Your task to perform on an android device: What's the latest news in astronomy? Image 0: 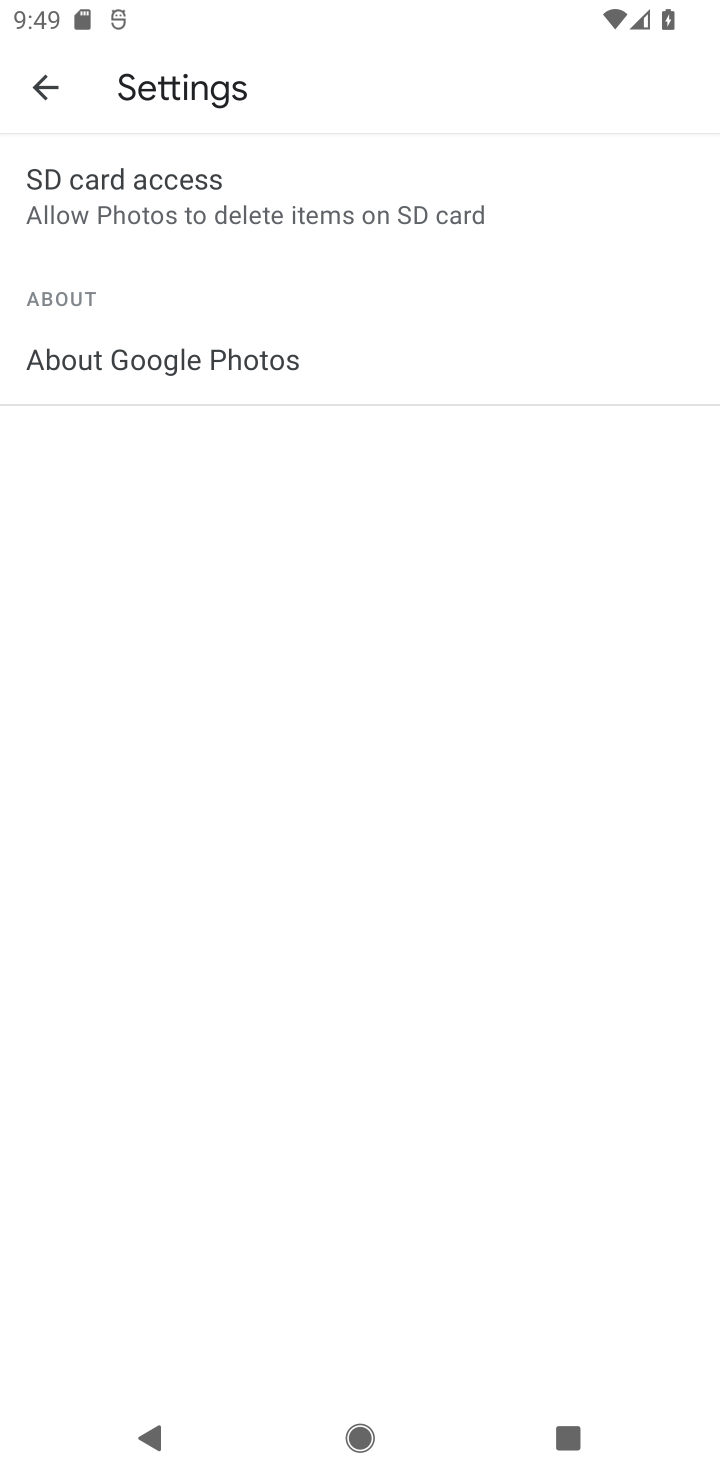
Step 0: press home button
Your task to perform on an android device: What's the latest news in astronomy? Image 1: 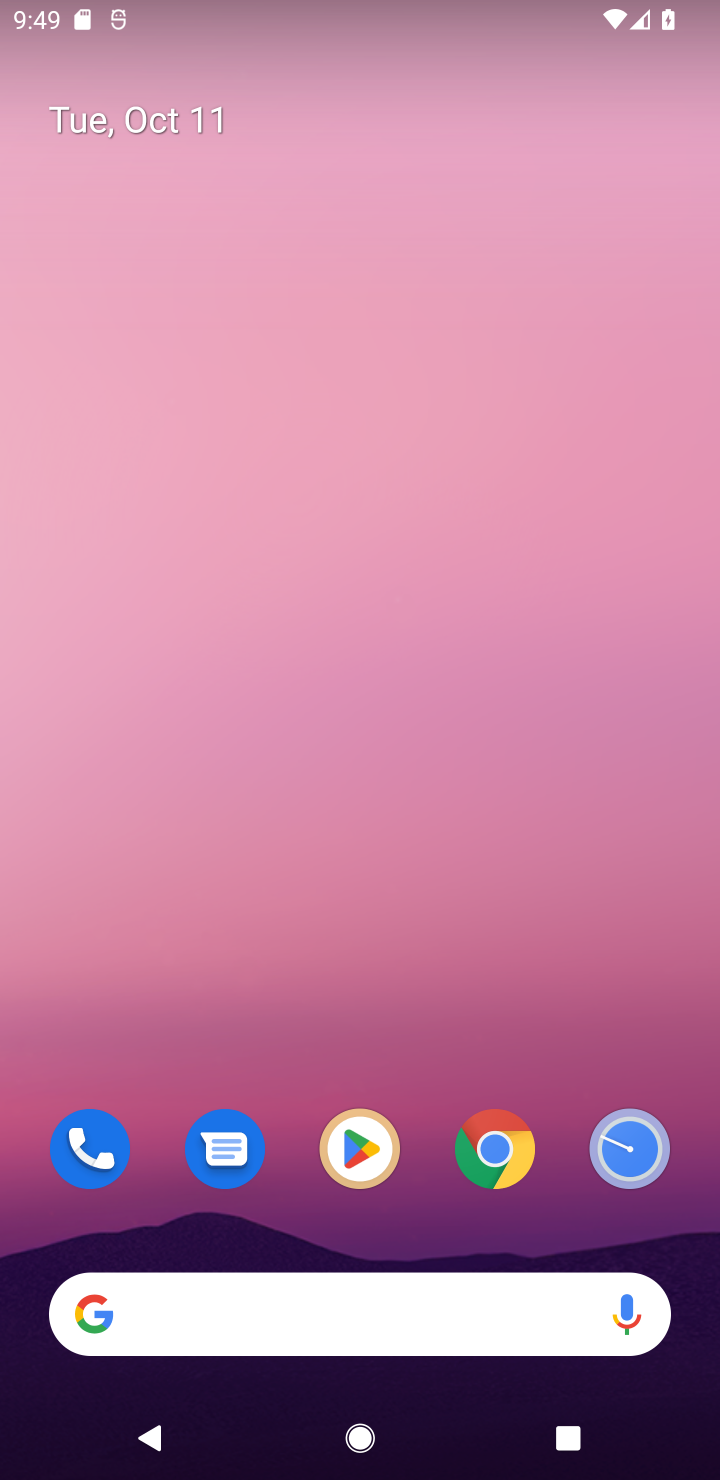
Step 1: click (332, 1307)
Your task to perform on an android device: What's the latest news in astronomy? Image 2: 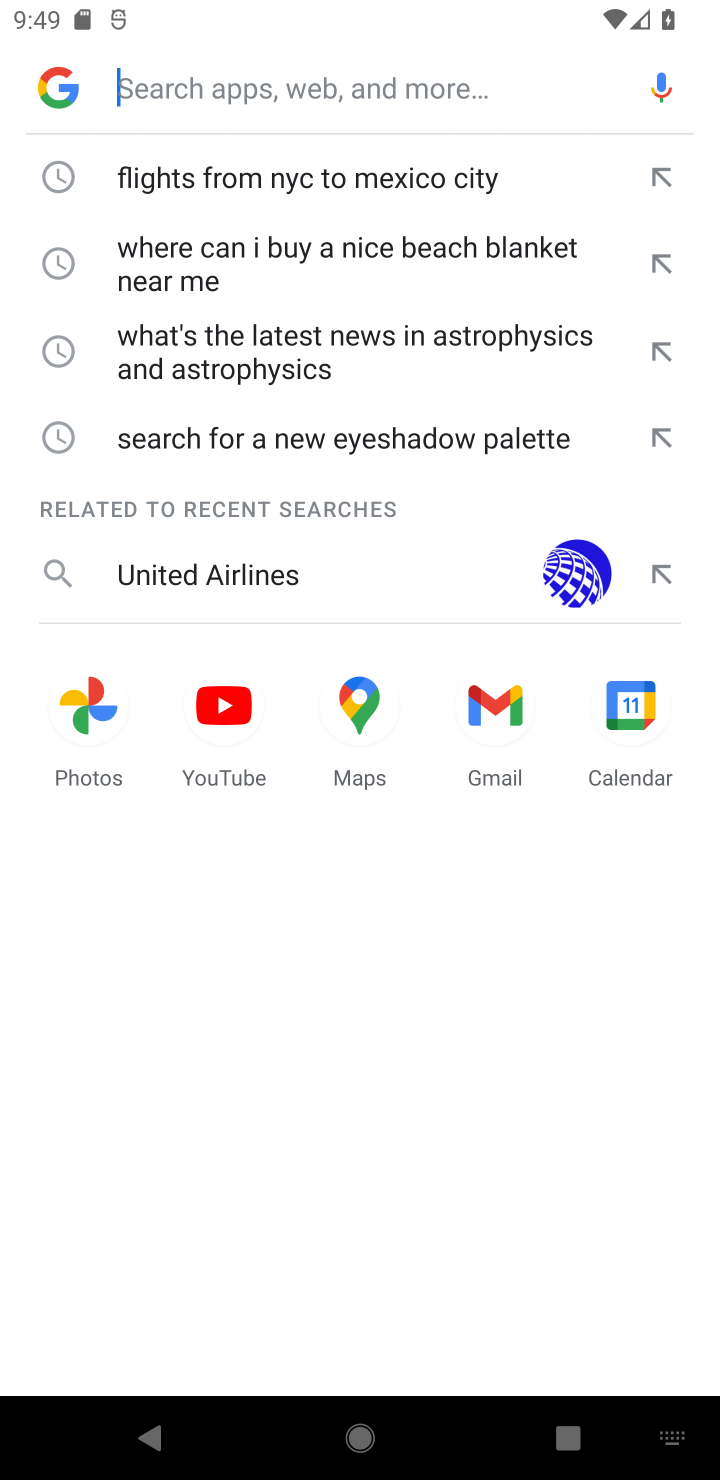
Step 2: type "What's the latest news in astronomy?"
Your task to perform on an android device: What's the latest news in astronomy? Image 3: 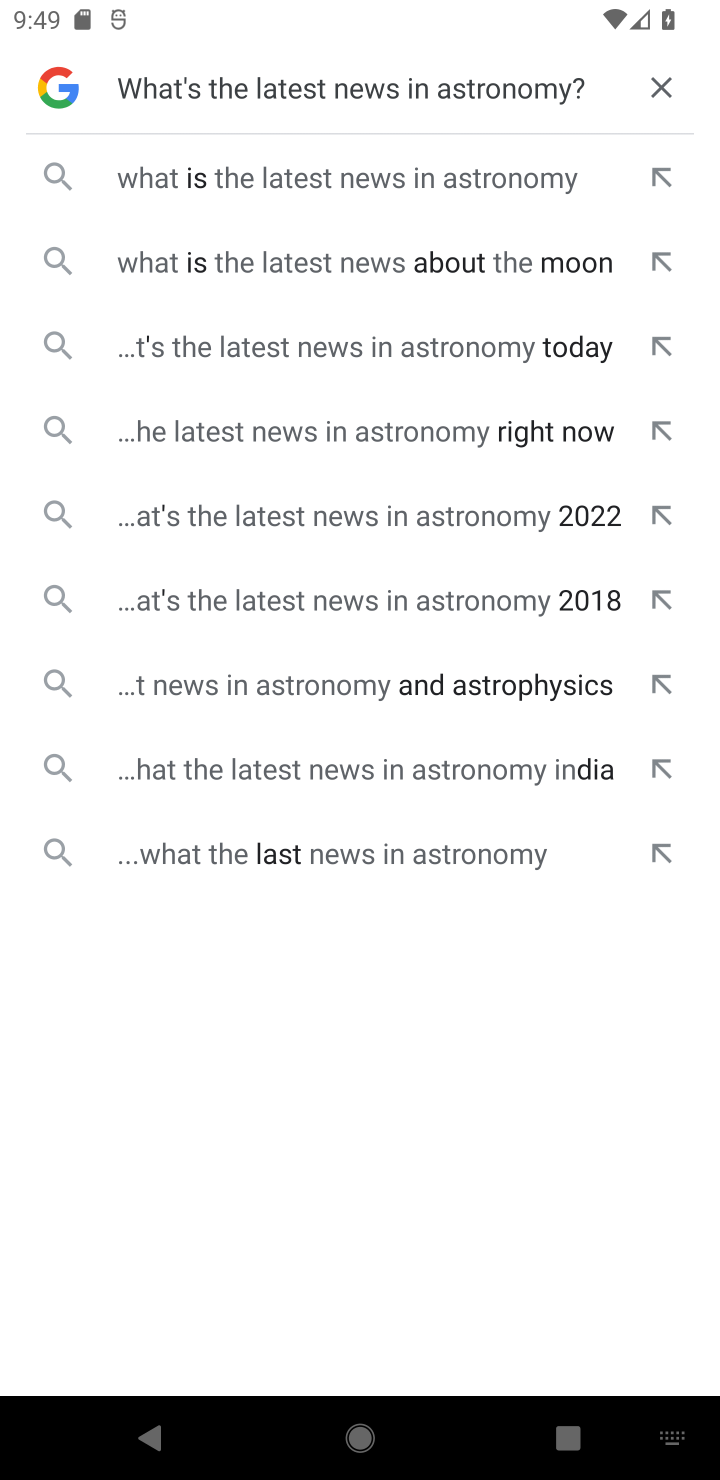
Step 3: click (517, 166)
Your task to perform on an android device: What's the latest news in astronomy? Image 4: 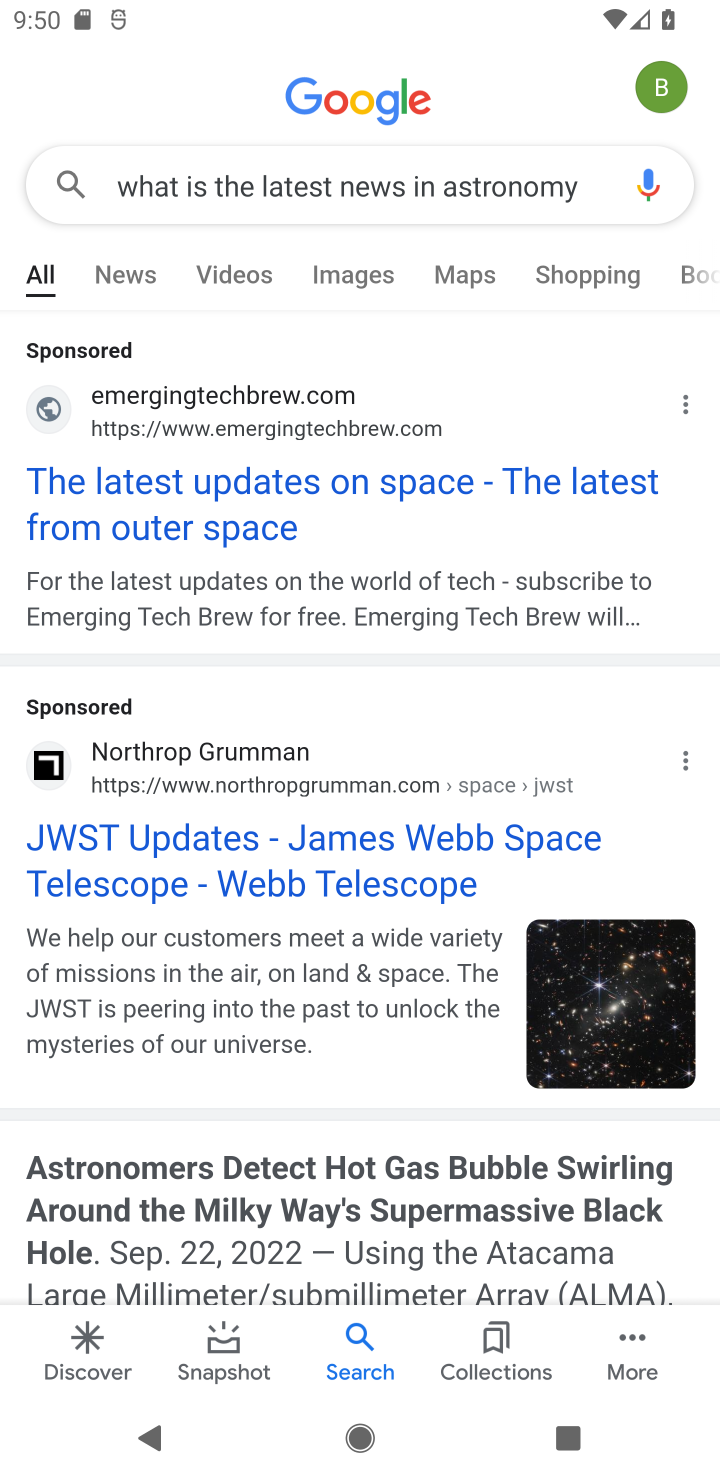
Step 4: click (373, 1087)
Your task to perform on an android device: What's the latest news in astronomy? Image 5: 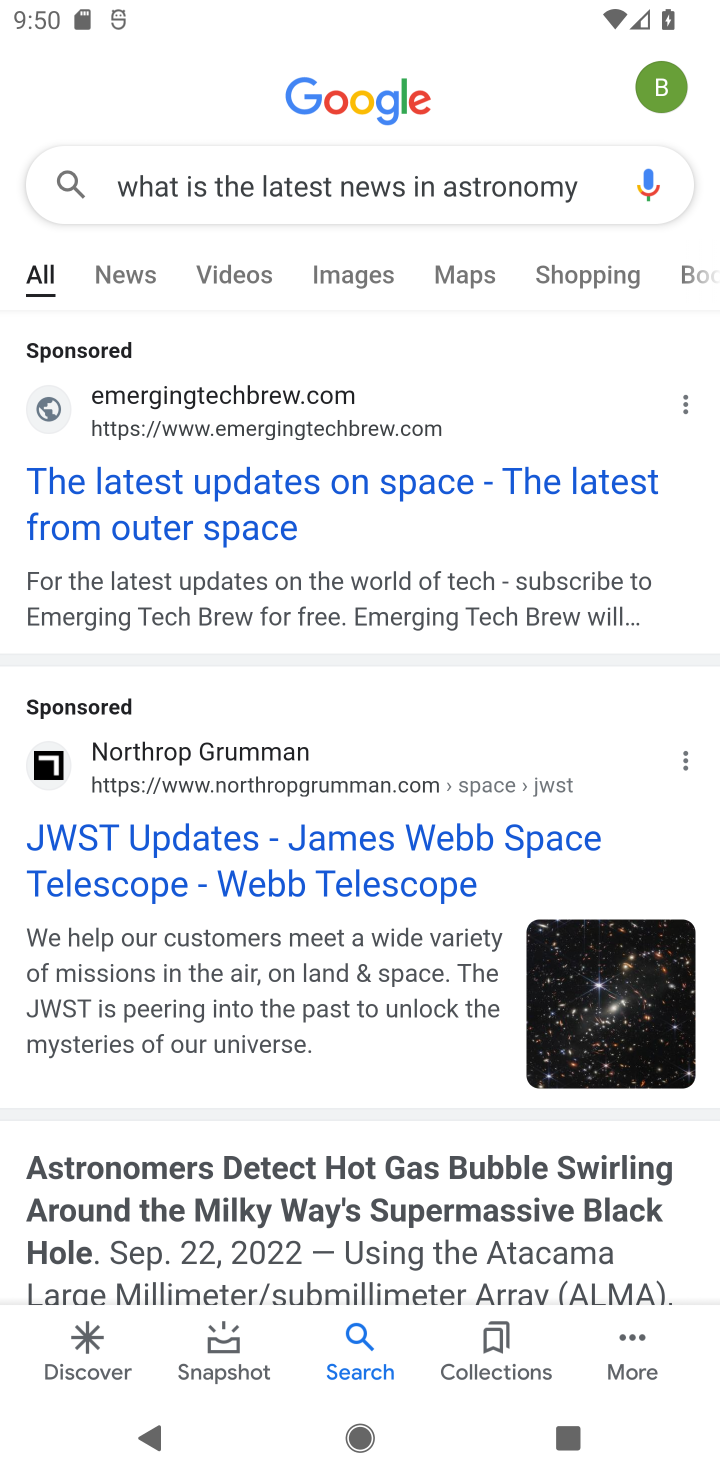
Step 5: task complete